Your task to perform on an android device: Go to Reddit.com Image 0: 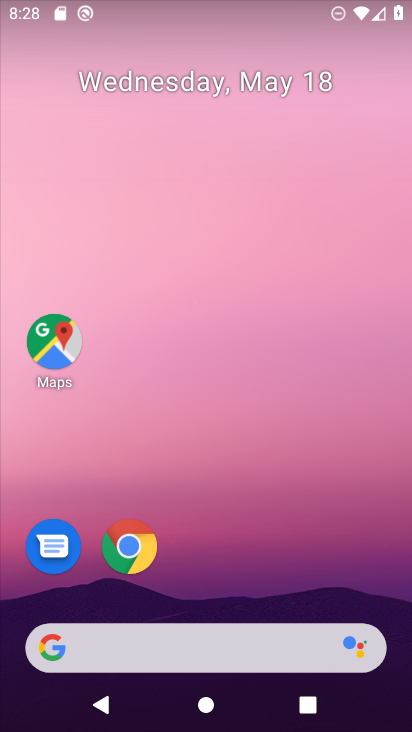
Step 0: drag from (231, 680) to (398, 36)
Your task to perform on an android device: Go to Reddit.com Image 1: 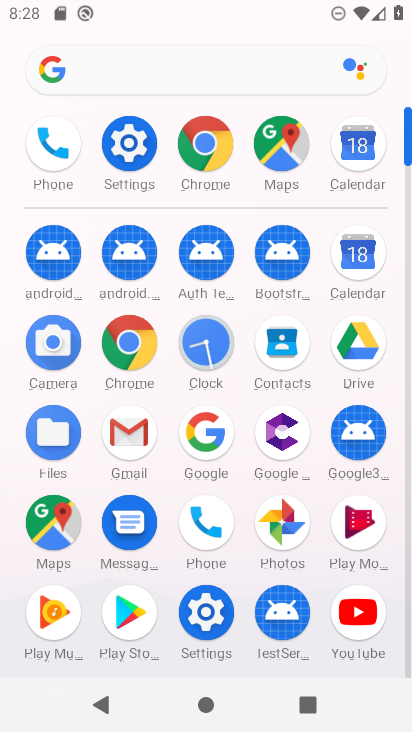
Step 1: click (210, 161)
Your task to perform on an android device: Go to Reddit.com Image 2: 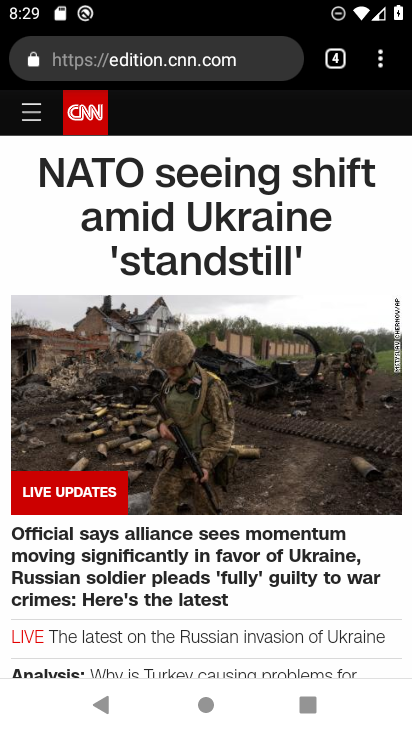
Step 2: click (203, 64)
Your task to perform on an android device: Go to Reddit.com Image 3: 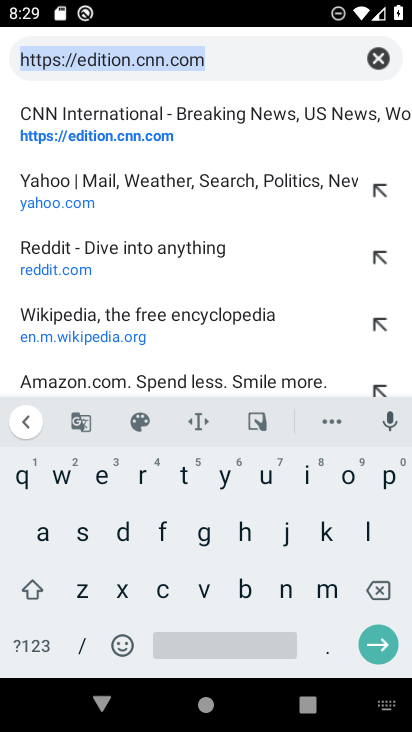
Step 3: click (133, 483)
Your task to perform on an android device: Go to Reddit.com Image 4: 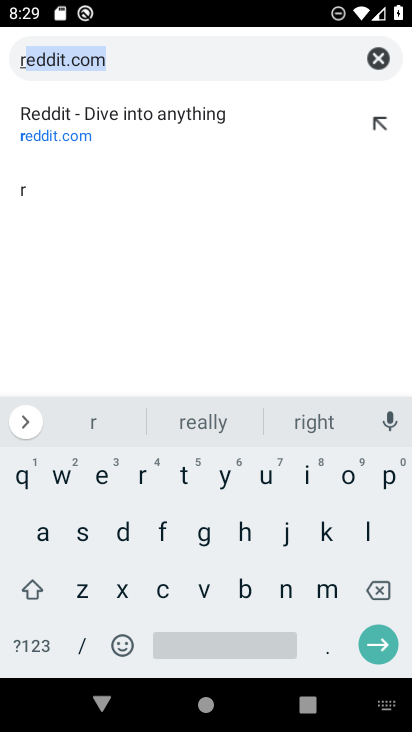
Step 4: click (97, 478)
Your task to perform on an android device: Go to Reddit.com Image 5: 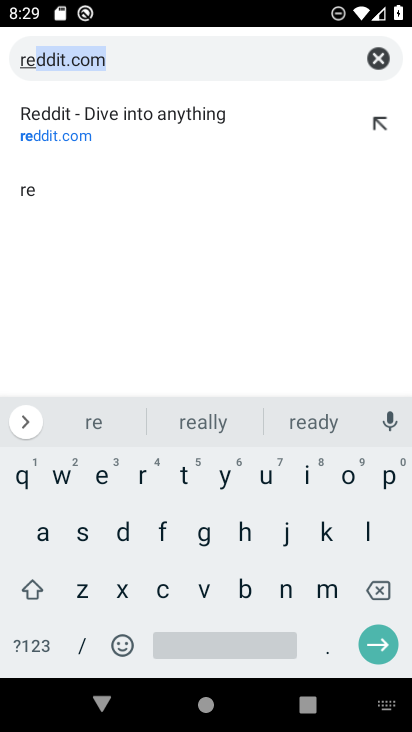
Step 5: click (87, 115)
Your task to perform on an android device: Go to Reddit.com Image 6: 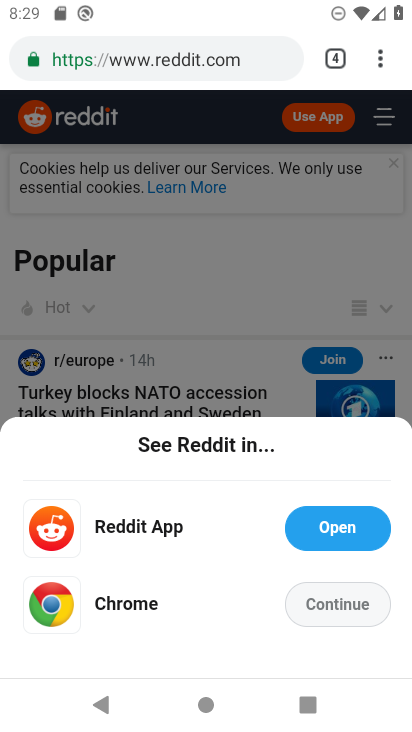
Step 6: click (313, 612)
Your task to perform on an android device: Go to Reddit.com Image 7: 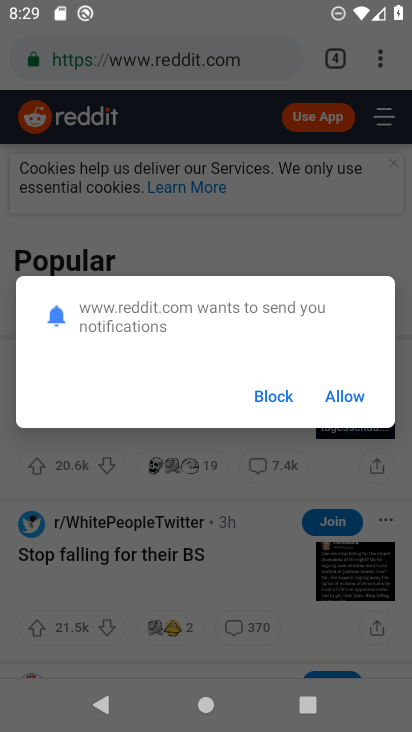
Step 7: click (272, 400)
Your task to perform on an android device: Go to Reddit.com Image 8: 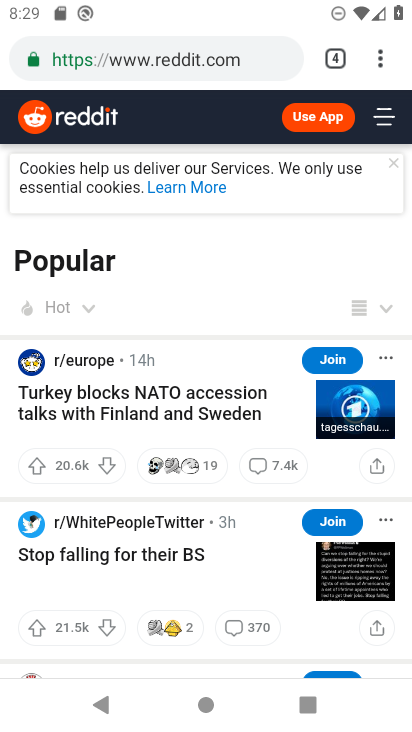
Step 8: task complete